Your task to perform on an android device: Show the shopping cart on amazon. Add "asus zenbook" to the cart on amazon Image 0: 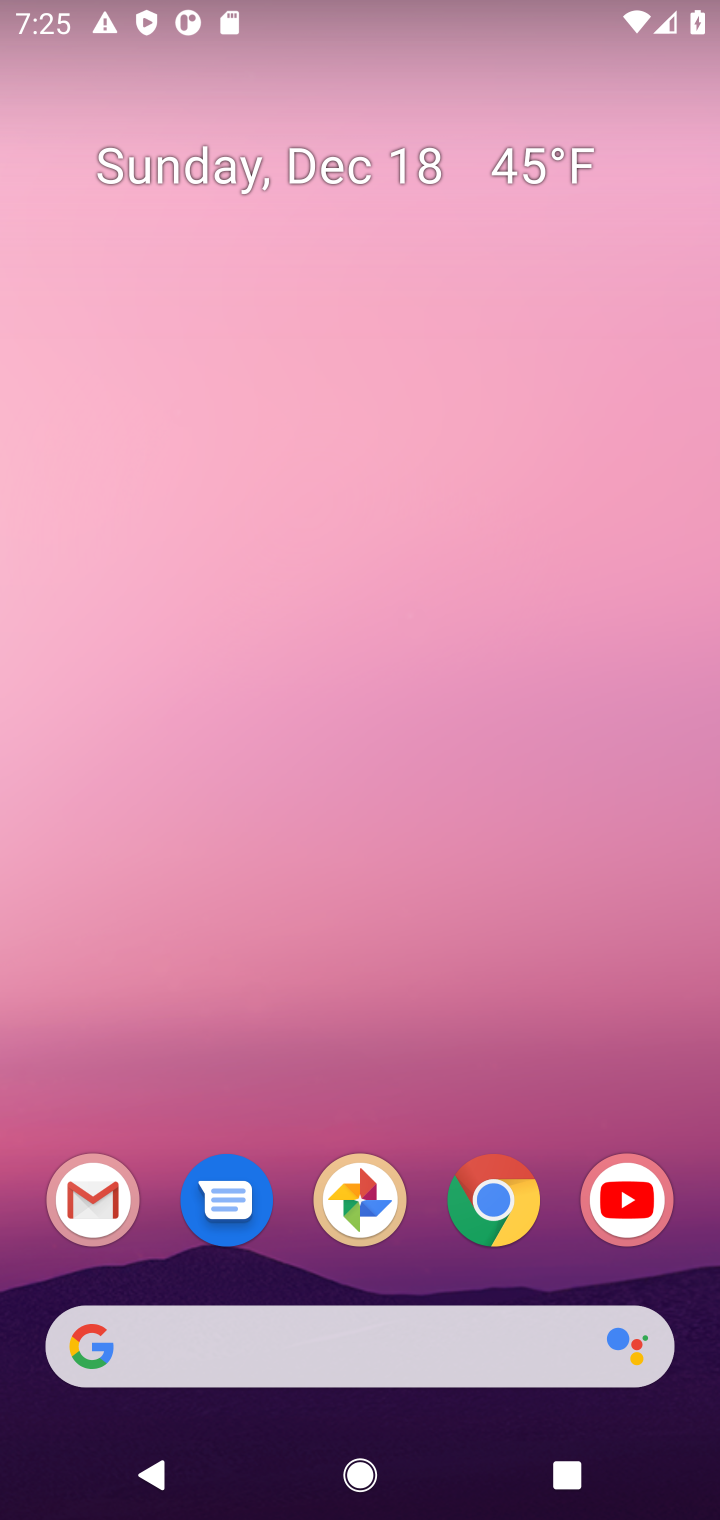
Step 0: click (494, 1197)
Your task to perform on an android device: Show the shopping cart on amazon. Add "asus zenbook" to the cart on amazon Image 1: 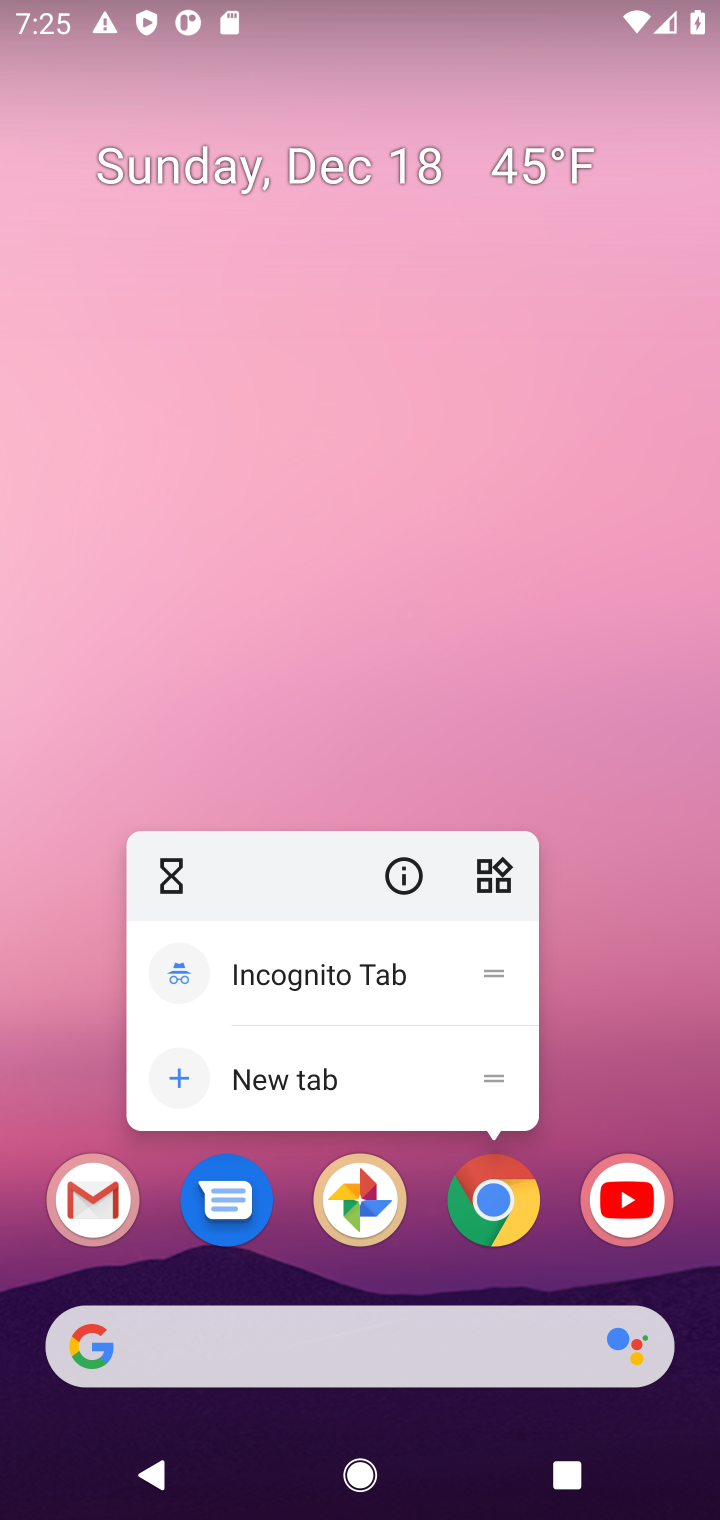
Step 1: click (494, 1197)
Your task to perform on an android device: Show the shopping cart on amazon. Add "asus zenbook" to the cart on amazon Image 2: 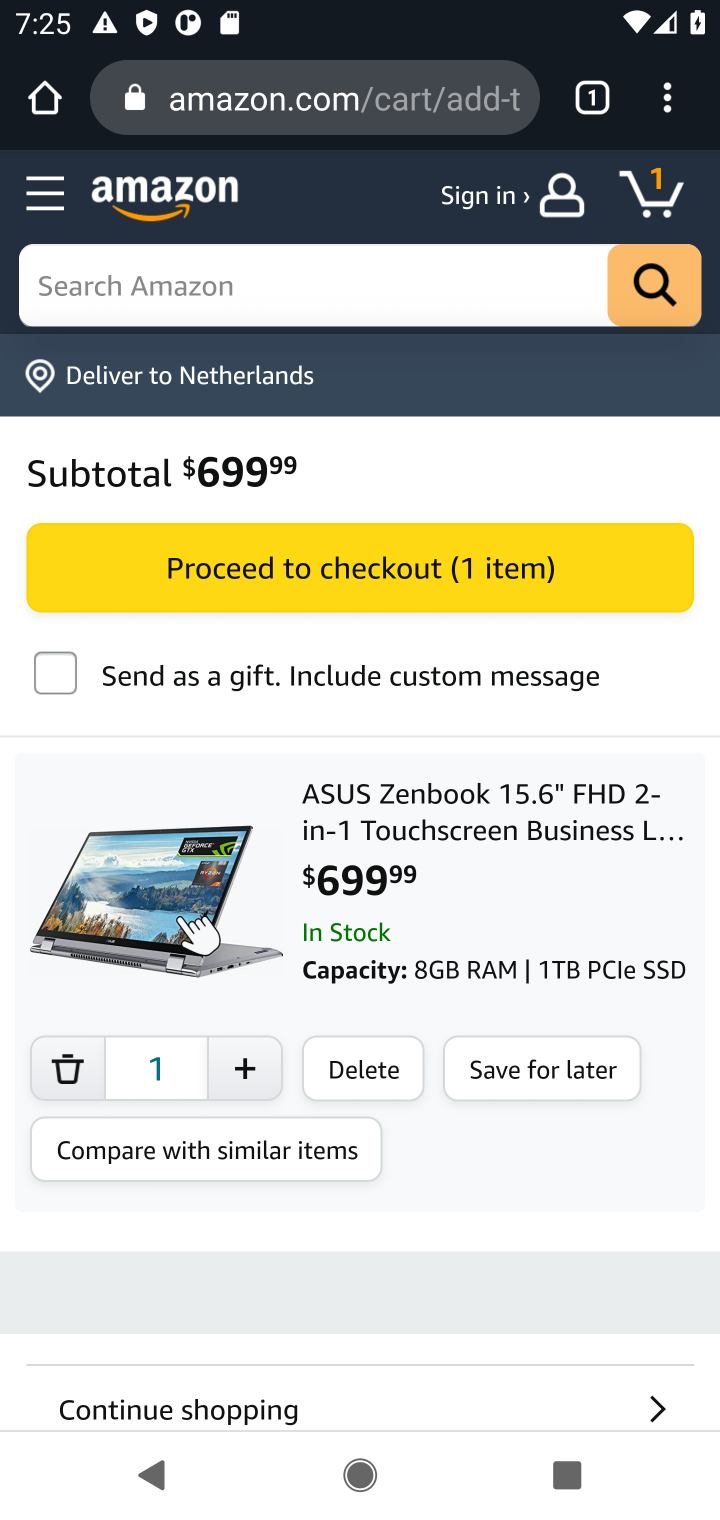
Step 2: click (265, 289)
Your task to perform on an android device: Show the shopping cart on amazon. Add "asus zenbook" to the cart on amazon Image 3: 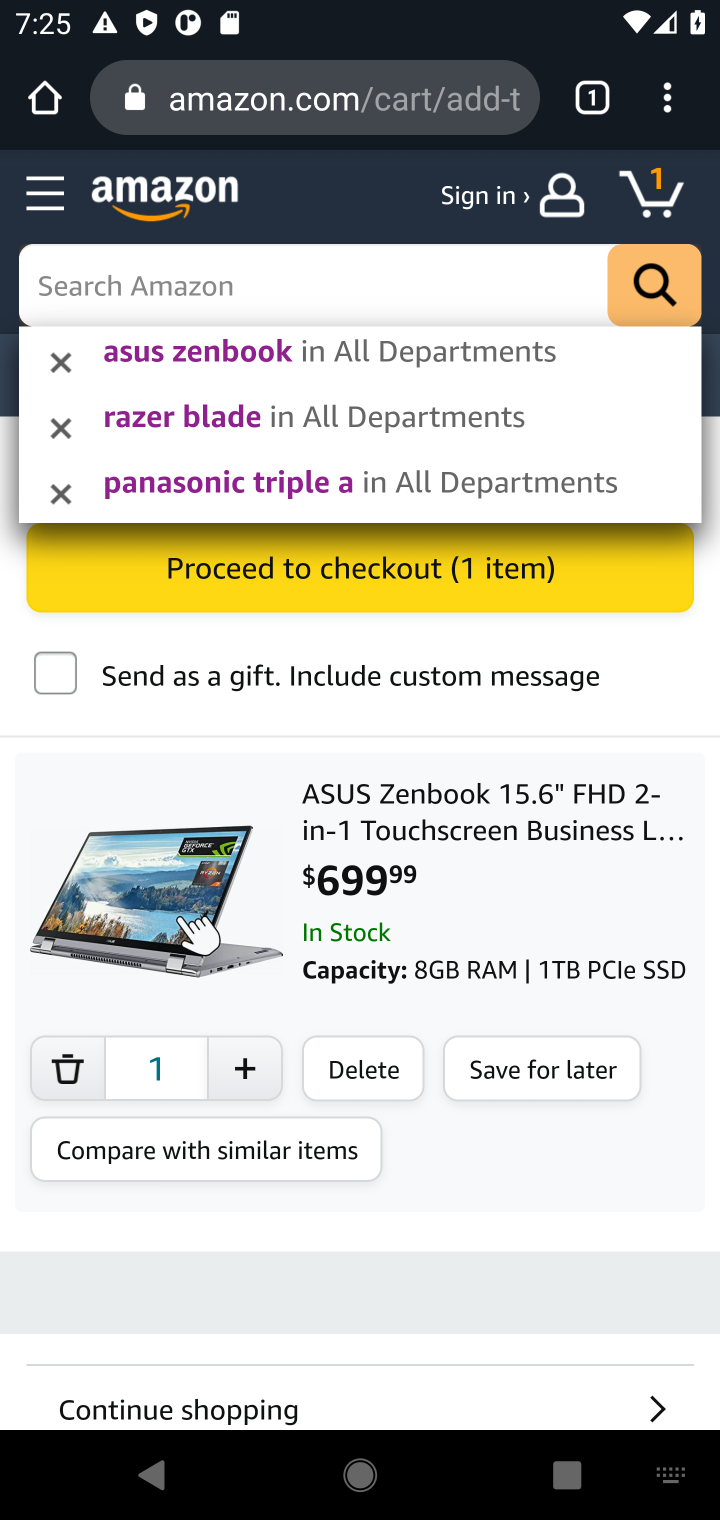
Step 3: type "asus zenbook"
Your task to perform on an android device: Show the shopping cart on amazon. Add "asus zenbook" to the cart on amazon Image 4: 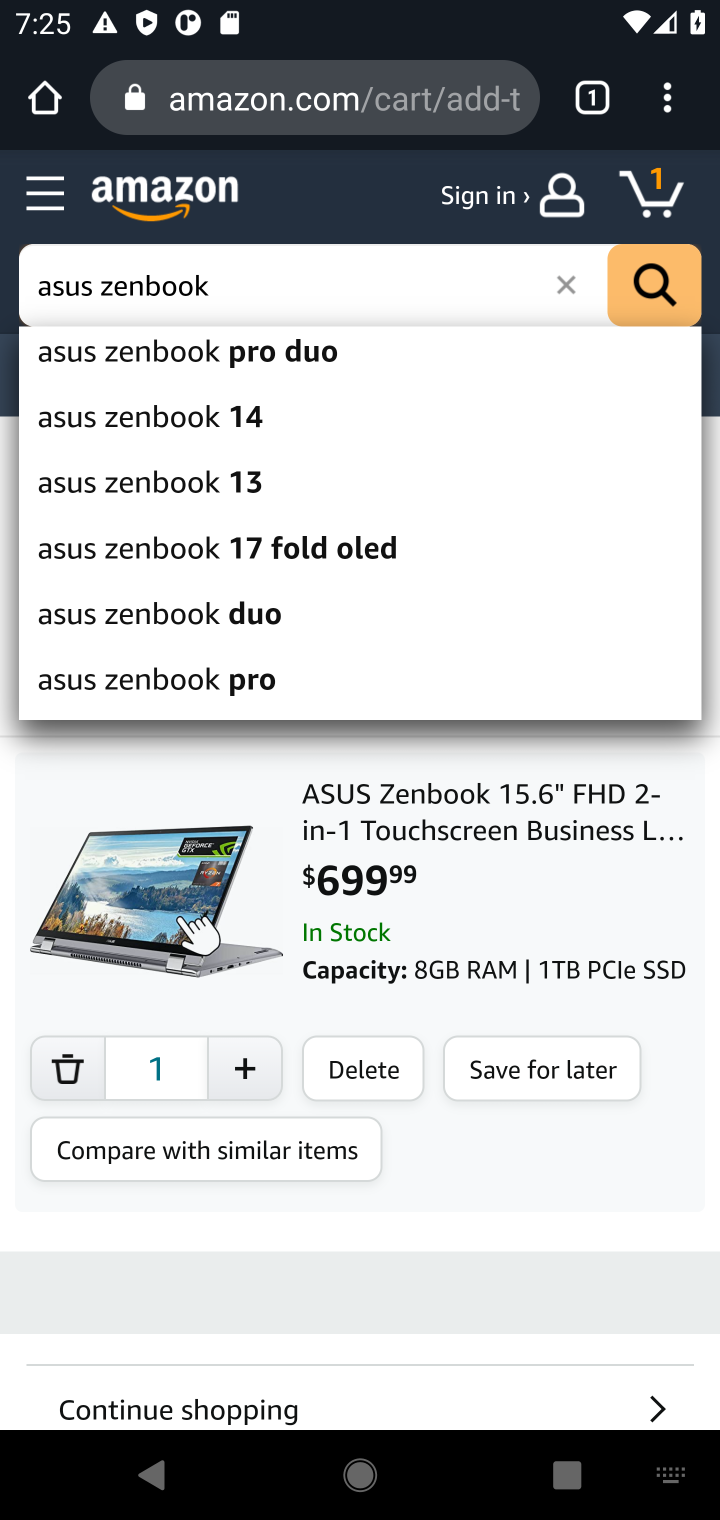
Step 4: click (646, 289)
Your task to perform on an android device: Show the shopping cart on amazon. Add "asus zenbook" to the cart on amazon Image 5: 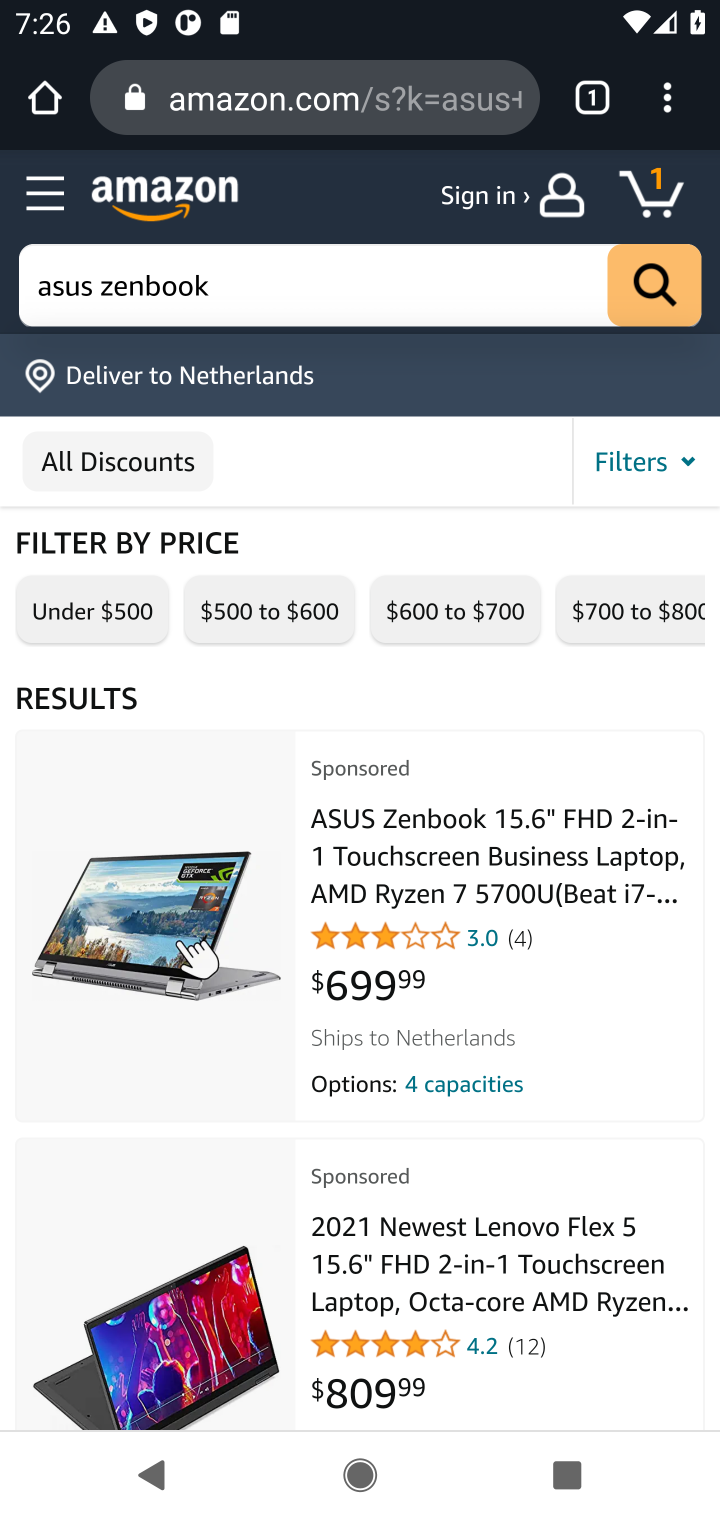
Step 5: click (474, 899)
Your task to perform on an android device: Show the shopping cart on amazon. Add "asus zenbook" to the cart on amazon Image 6: 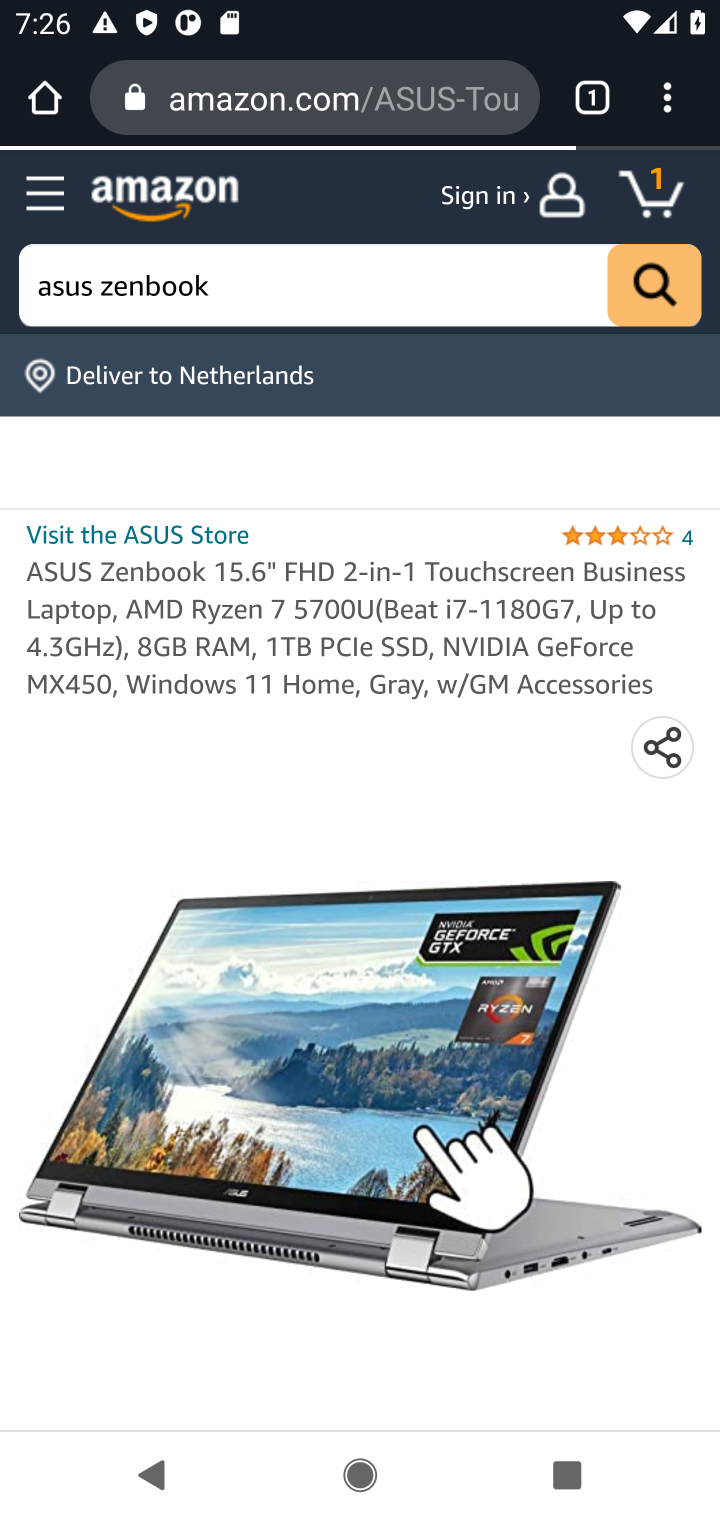
Step 6: drag from (299, 1269) to (318, 525)
Your task to perform on an android device: Show the shopping cart on amazon. Add "asus zenbook" to the cart on amazon Image 7: 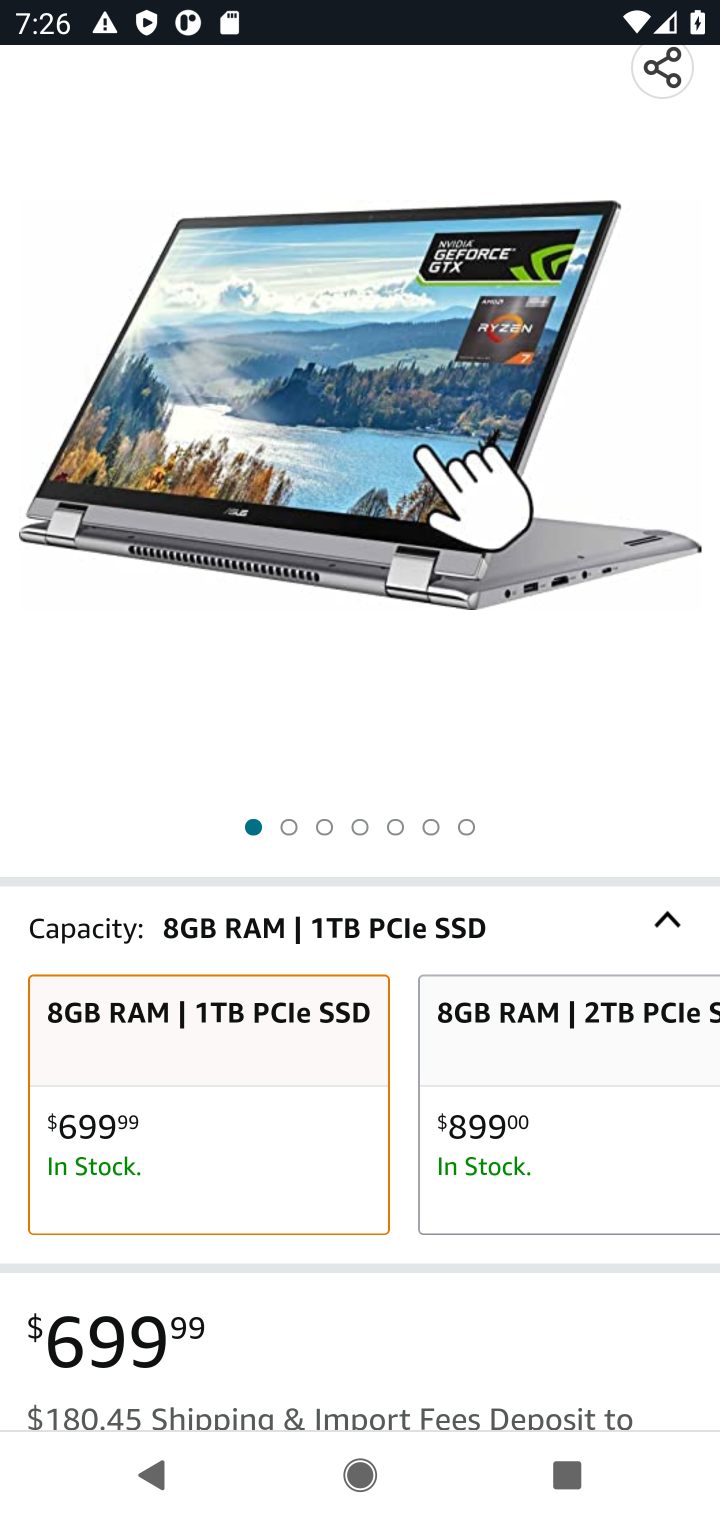
Step 7: drag from (279, 1139) to (254, 389)
Your task to perform on an android device: Show the shopping cart on amazon. Add "asus zenbook" to the cart on amazon Image 8: 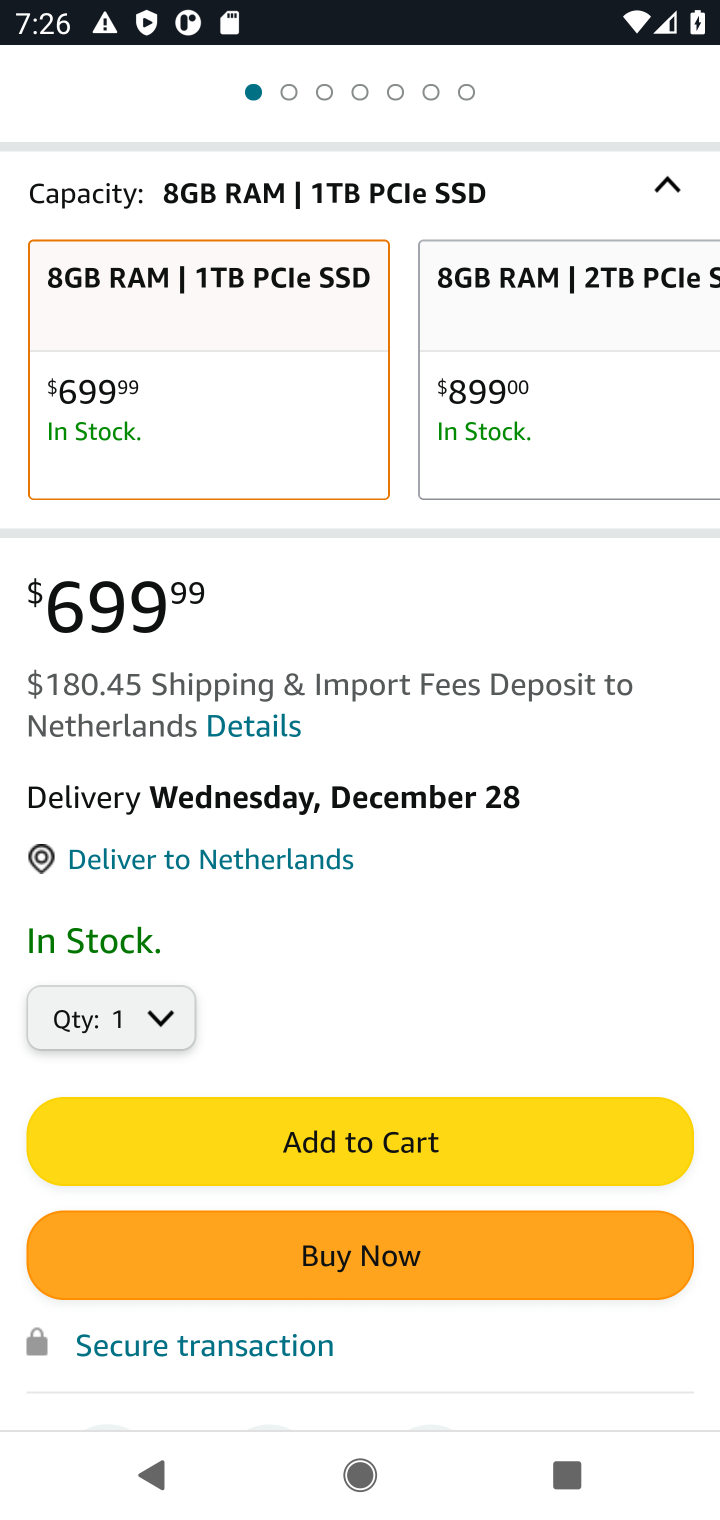
Step 8: click (303, 1129)
Your task to perform on an android device: Show the shopping cart on amazon. Add "asus zenbook" to the cart on amazon Image 9: 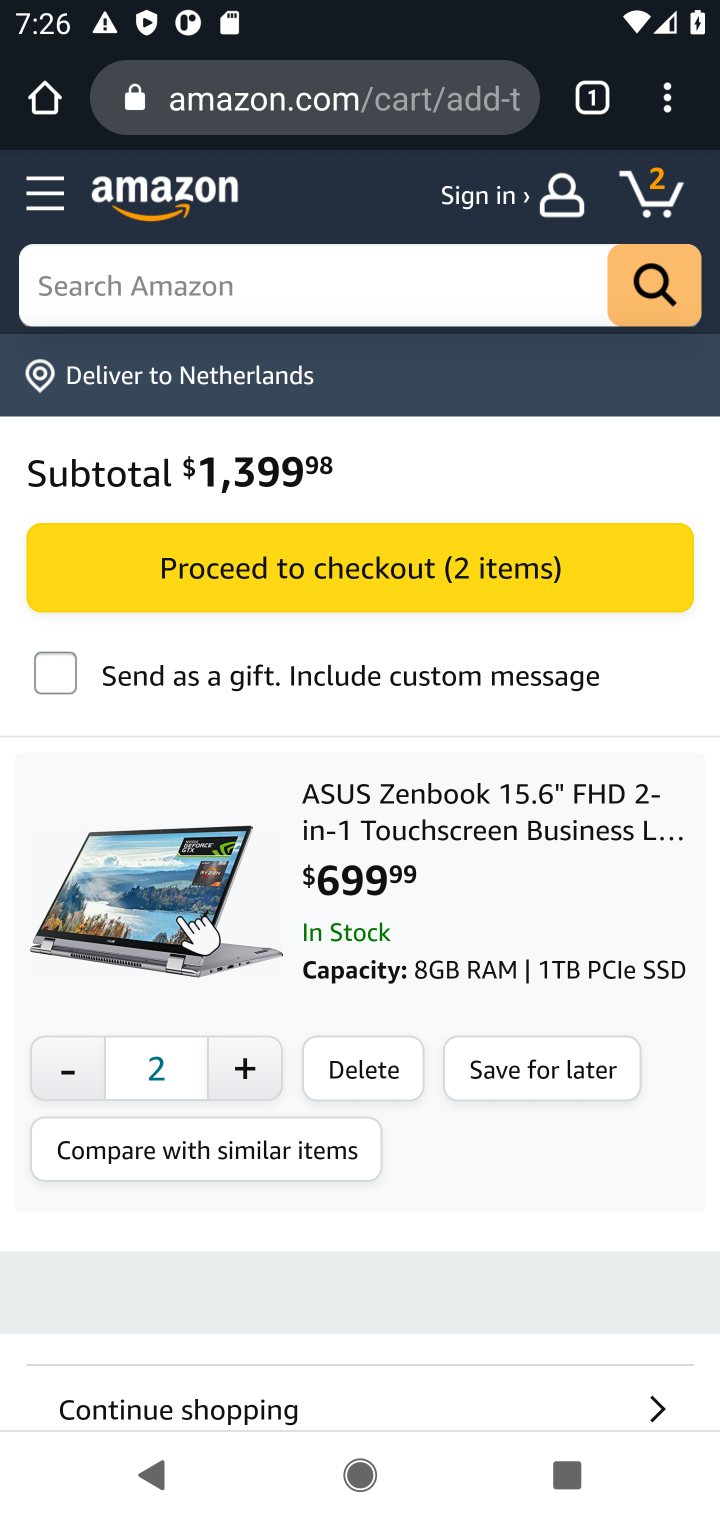
Step 9: task complete